Your task to perform on an android device: open wifi settings Image 0: 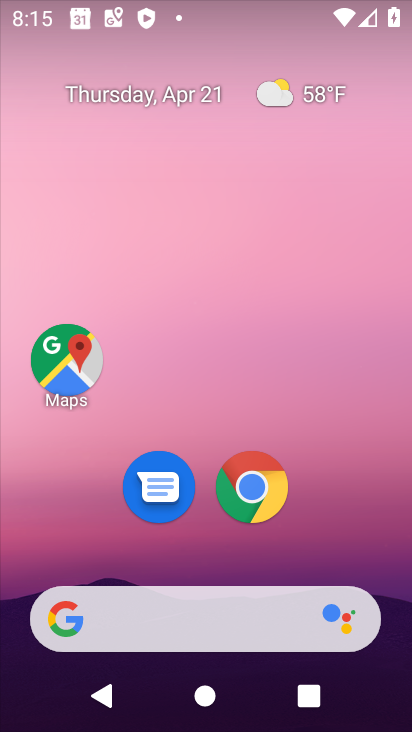
Step 0: drag from (342, 465) to (232, 22)
Your task to perform on an android device: open wifi settings Image 1: 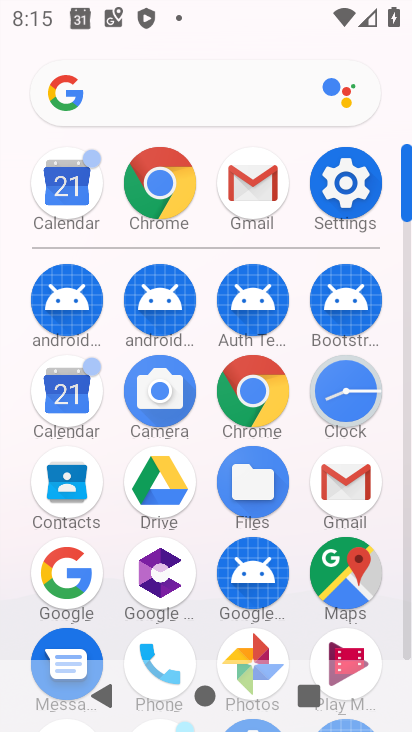
Step 1: drag from (5, 511) to (25, 325)
Your task to perform on an android device: open wifi settings Image 2: 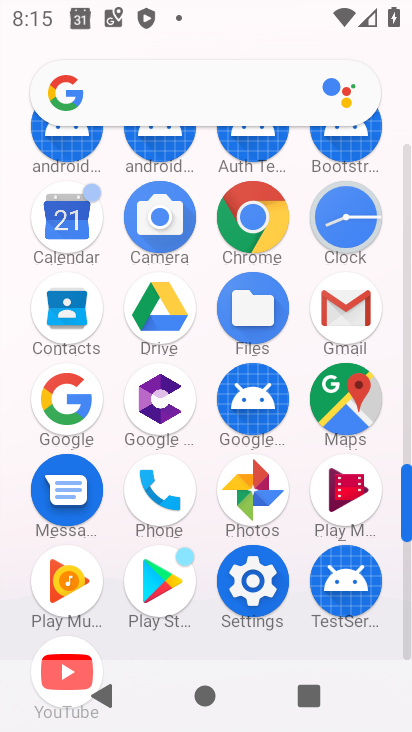
Step 2: click (251, 577)
Your task to perform on an android device: open wifi settings Image 3: 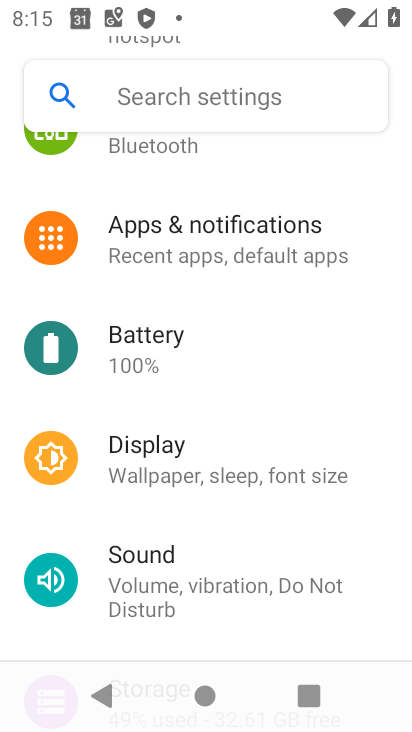
Step 3: drag from (221, 289) to (215, 588)
Your task to perform on an android device: open wifi settings Image 4: 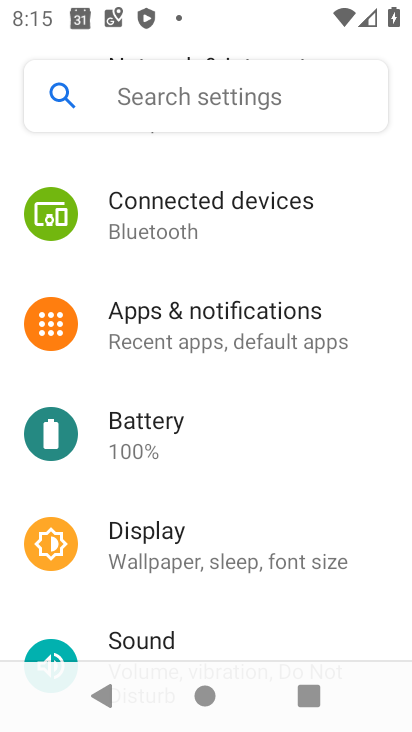
Step 4: drag from (225, 270) to (246, 519)
Your task to perform on an android device: open wifi settings Image 5: 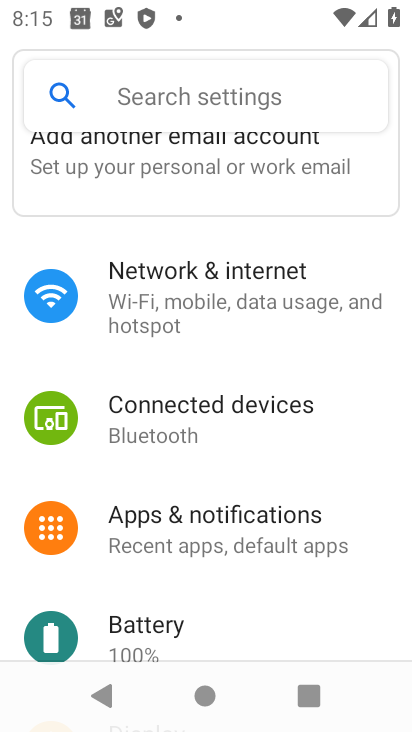
Step 5: click (222, 277)
Your task to perform on an android device: open wifi settings Image 6: 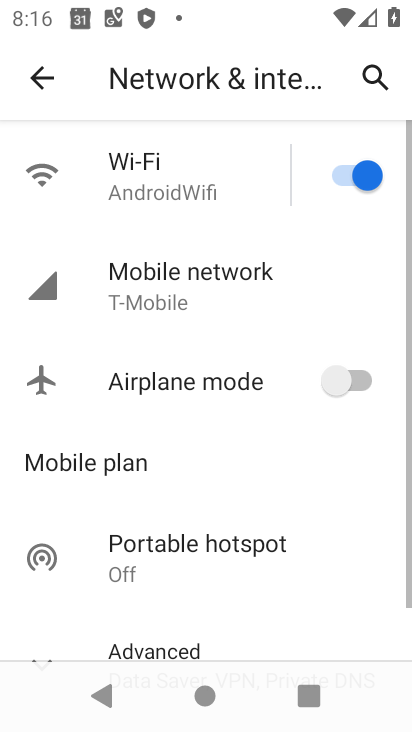
Step 6: click (180, 125)
Your task to perform on an android device: open wifi settings Image 7: 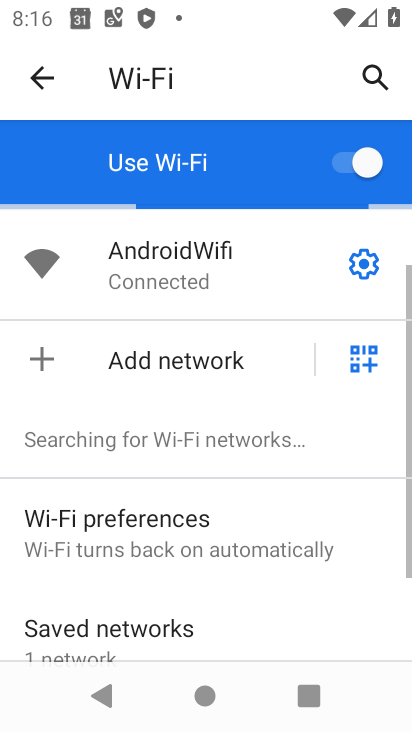
Step 7: task complete